Your task to perform on an android device: Add razer nari to the cart on target Image 0: 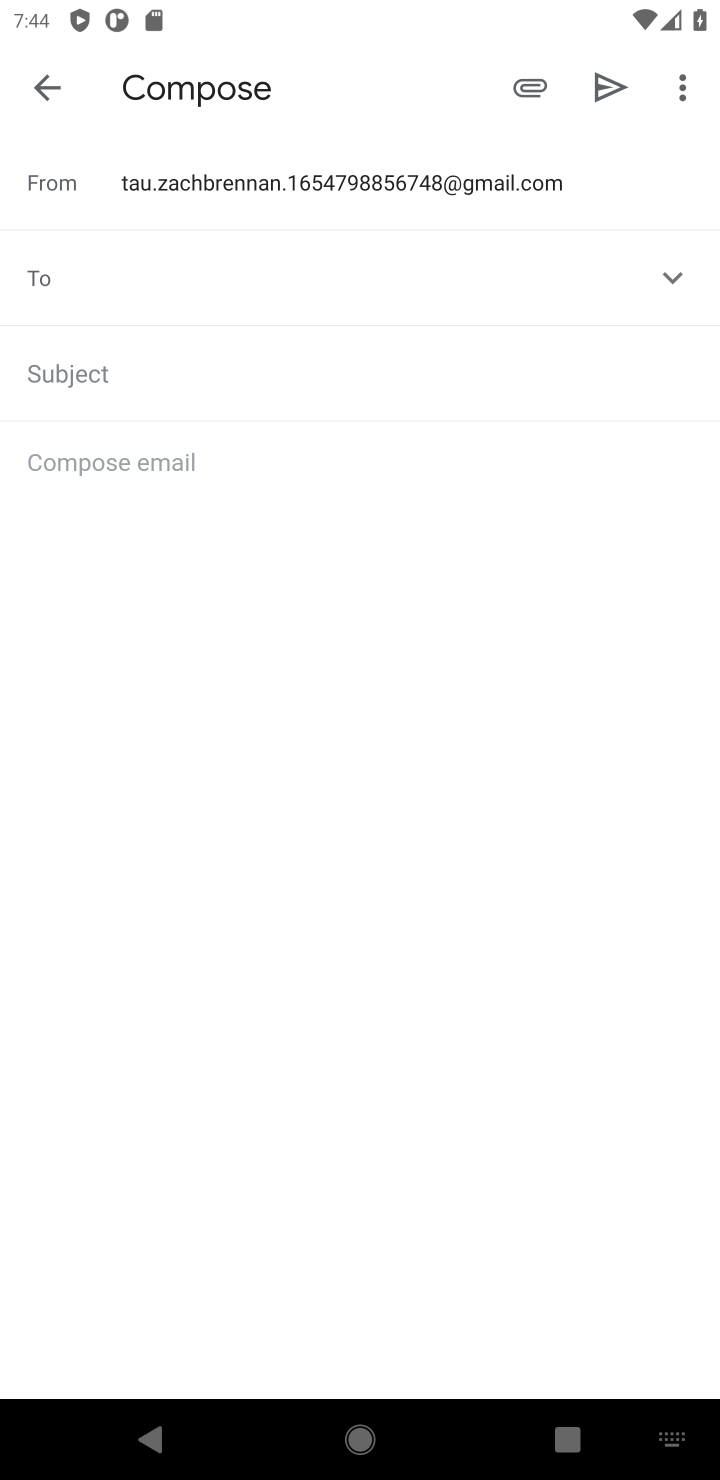
Step 0: press home button
Your task to perform on an android device: Add razer nari to the cart on target Image 1: 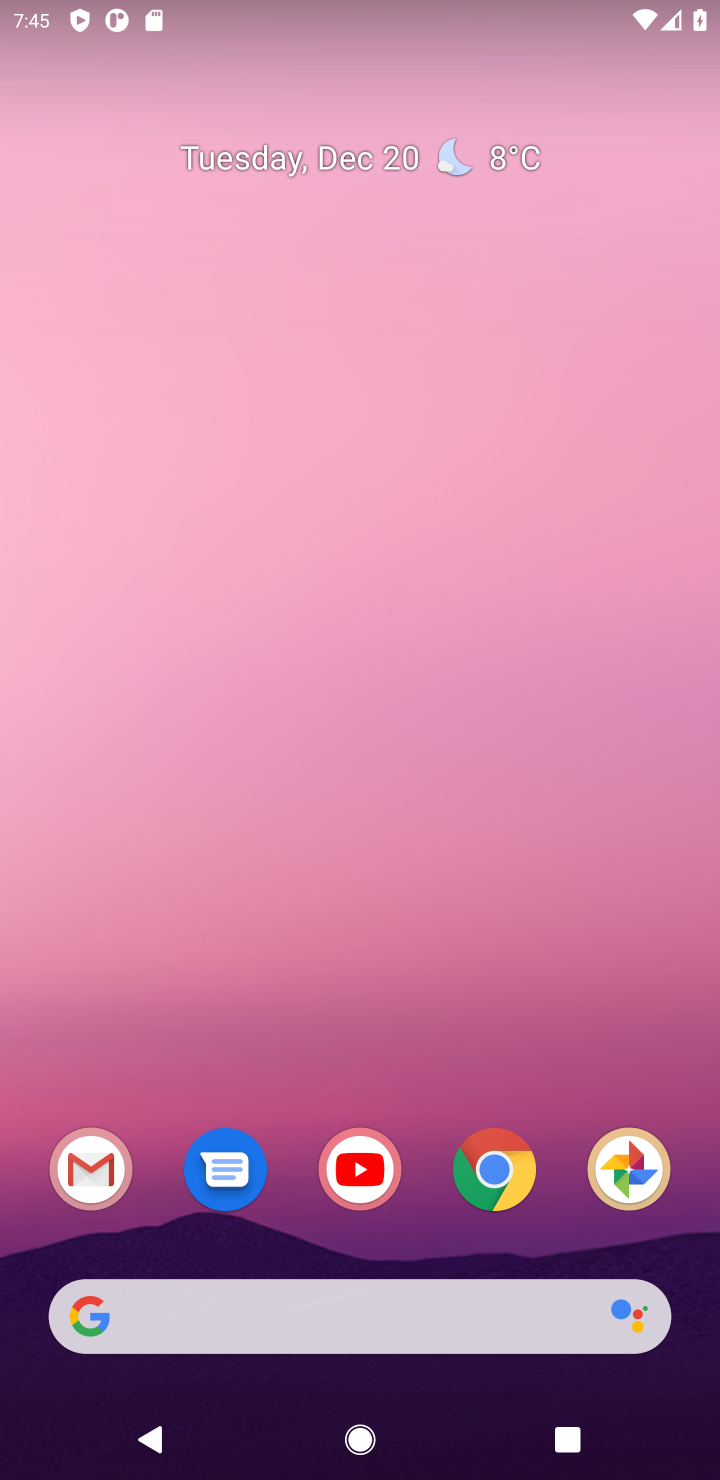
Step 1: click (527, 1176)
Your task to perform on an android device: Add razer nari to the cart on target Image 2: 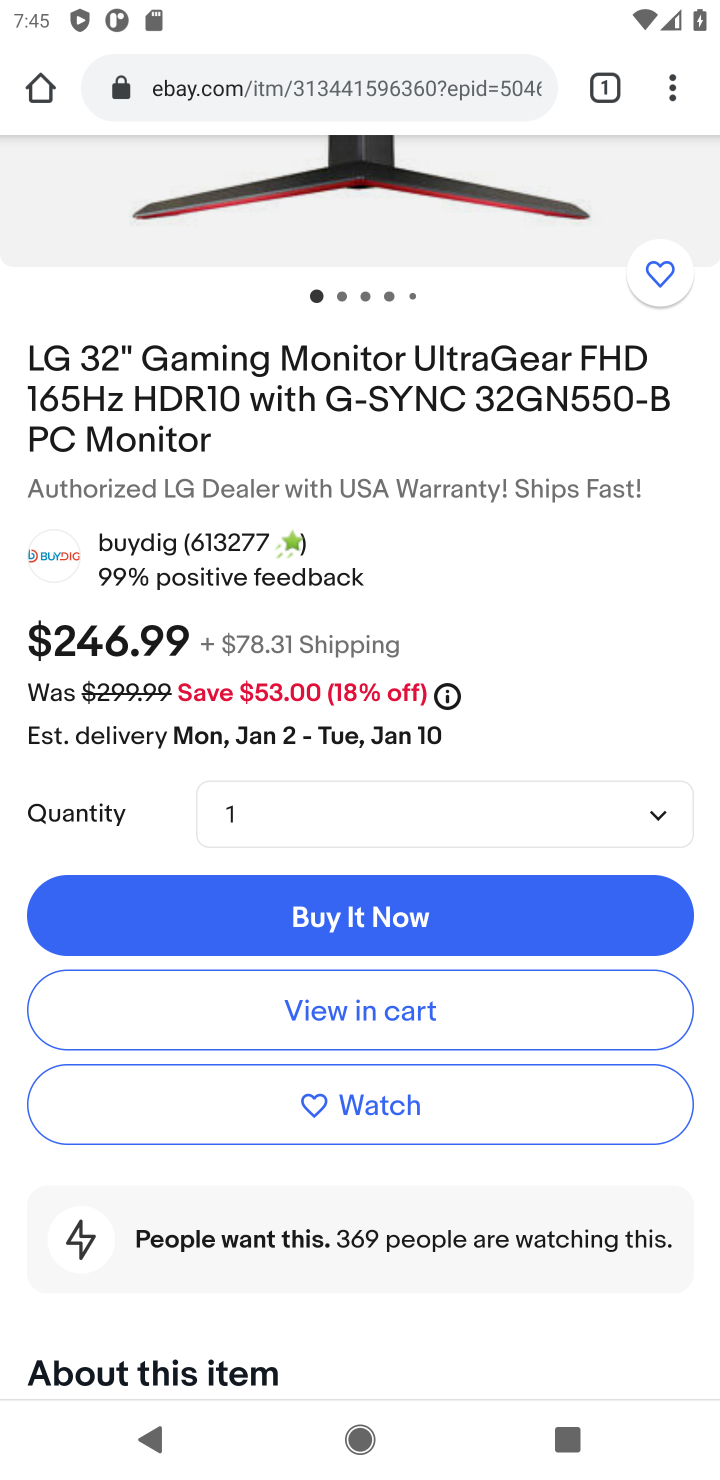
Step 2: click (388, 95)
Your task to perform on an android device: Add razer nari to the cart on target Image 3: 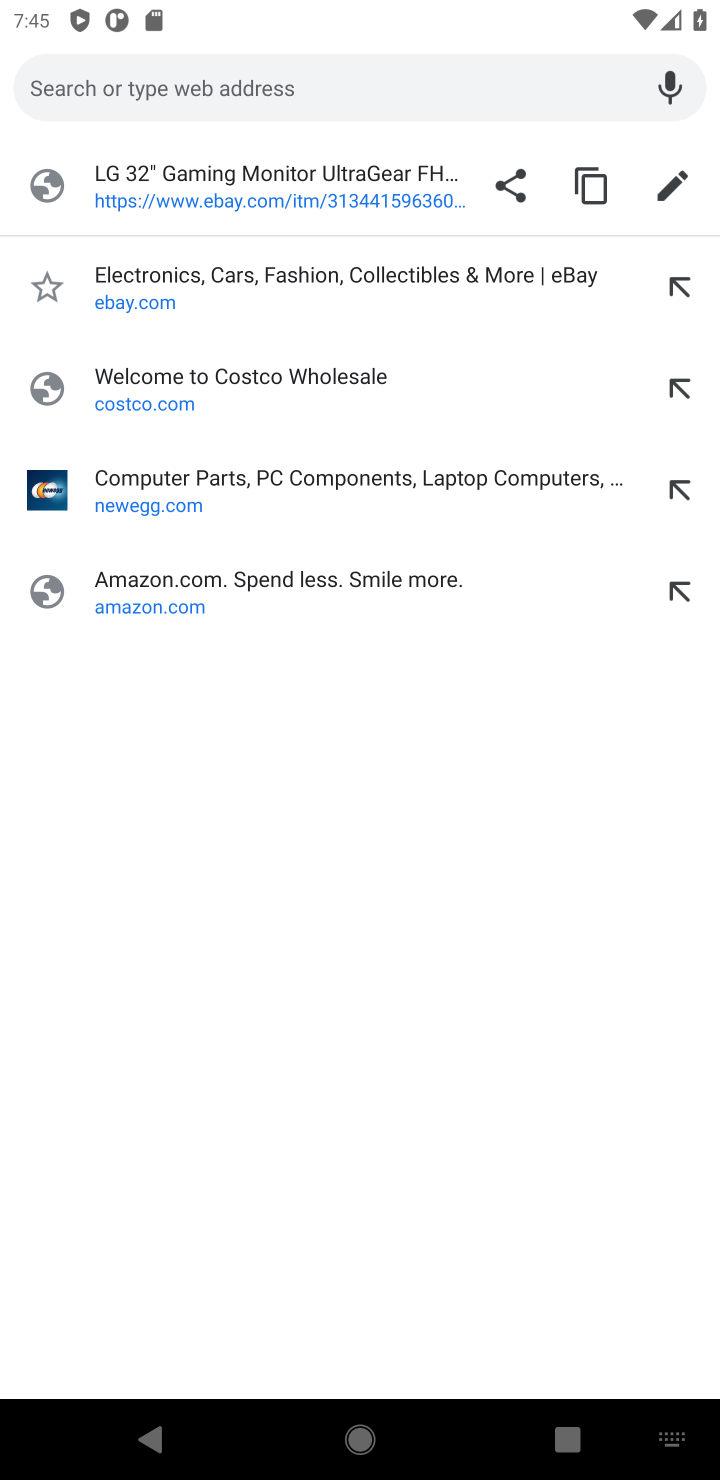
Step 3: type "target"
Your task to perform on an android device: Add razer nari to the cart on target Image 4: 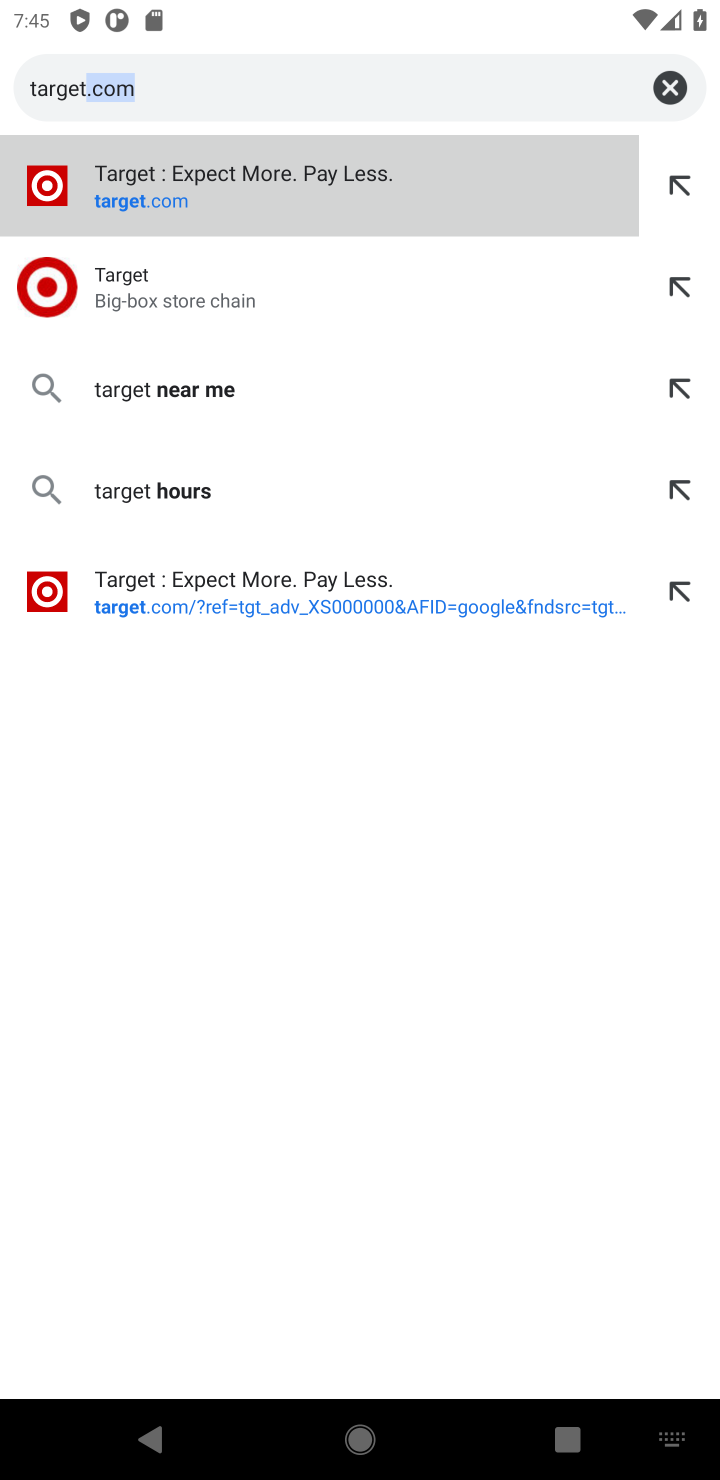
Step 4: click (312, 205)
Your task to perform on an android device: Add razer nari to the cart on target Image 5: 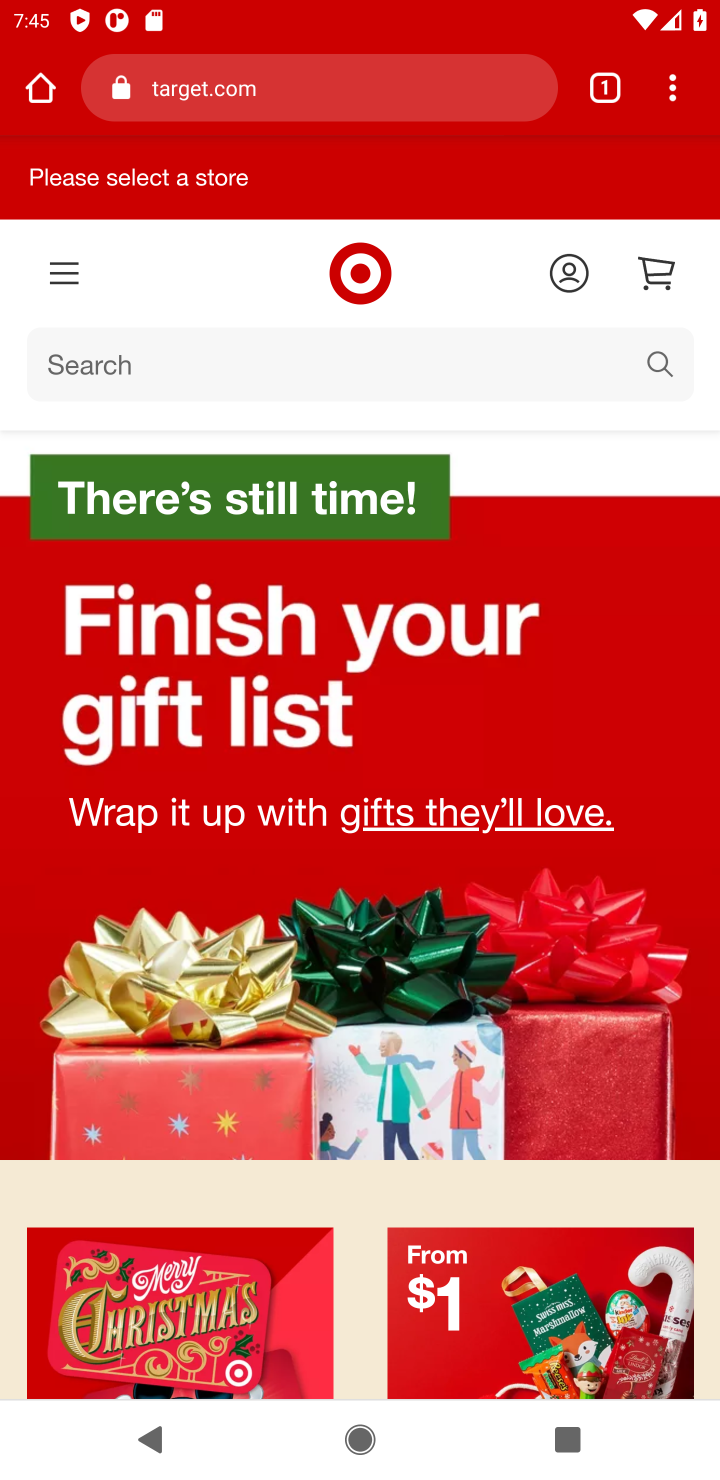
Step 5: click (134, 363)
Your task to perform on an android device: Add razer nari to the cart on target Image 6: 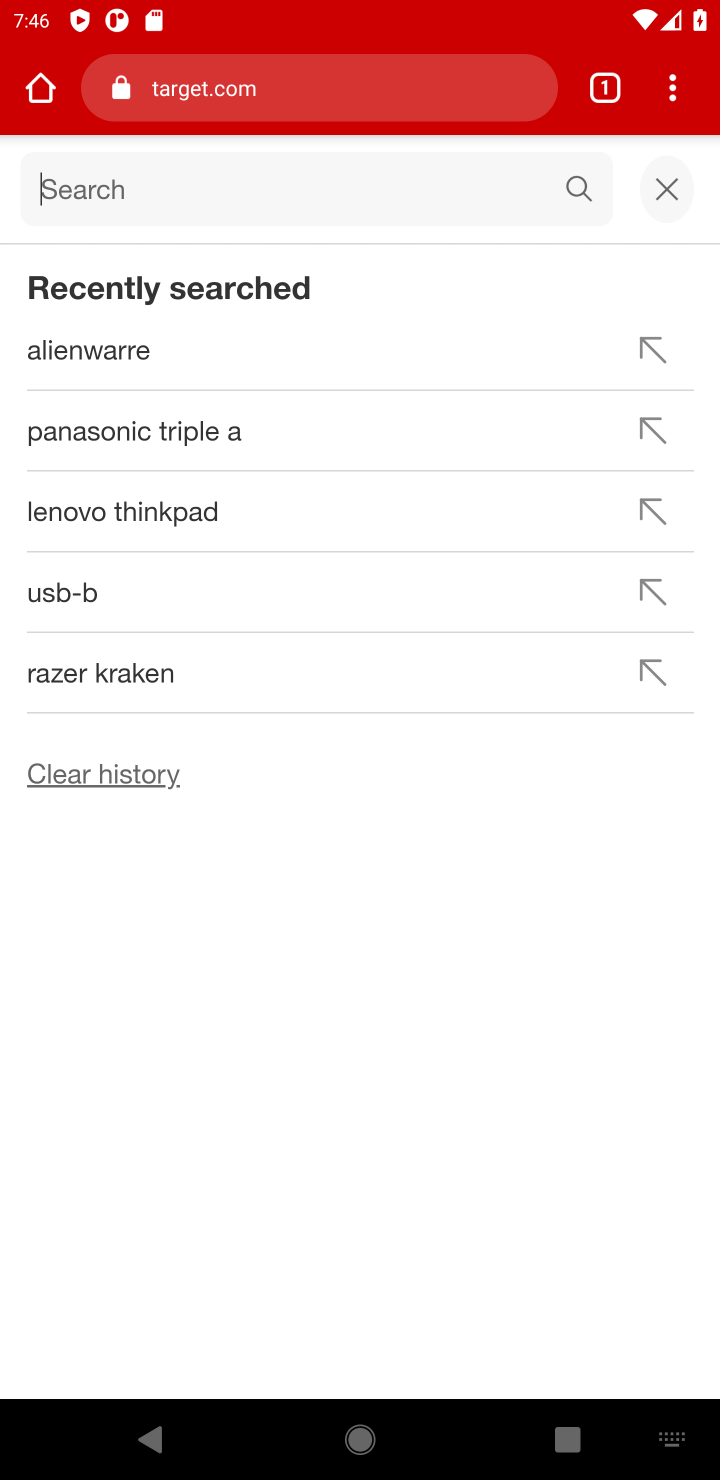
Step 6: type "razer nari"
Your task to perform on an android device: Add razer nari to the cart on target Image 7: 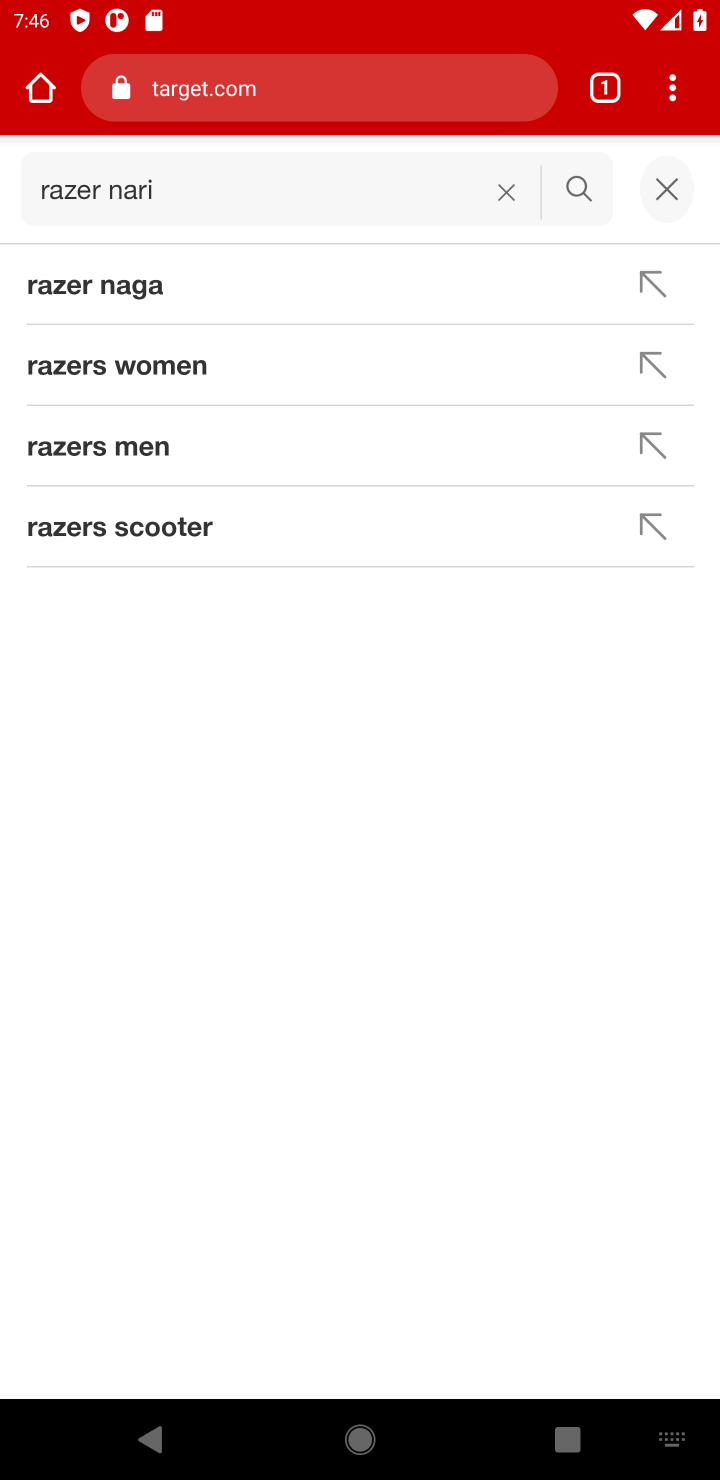
Step 7: click (583, 190)
Your task to perform on an android device: Add razer nari to the cart on target Image 8: 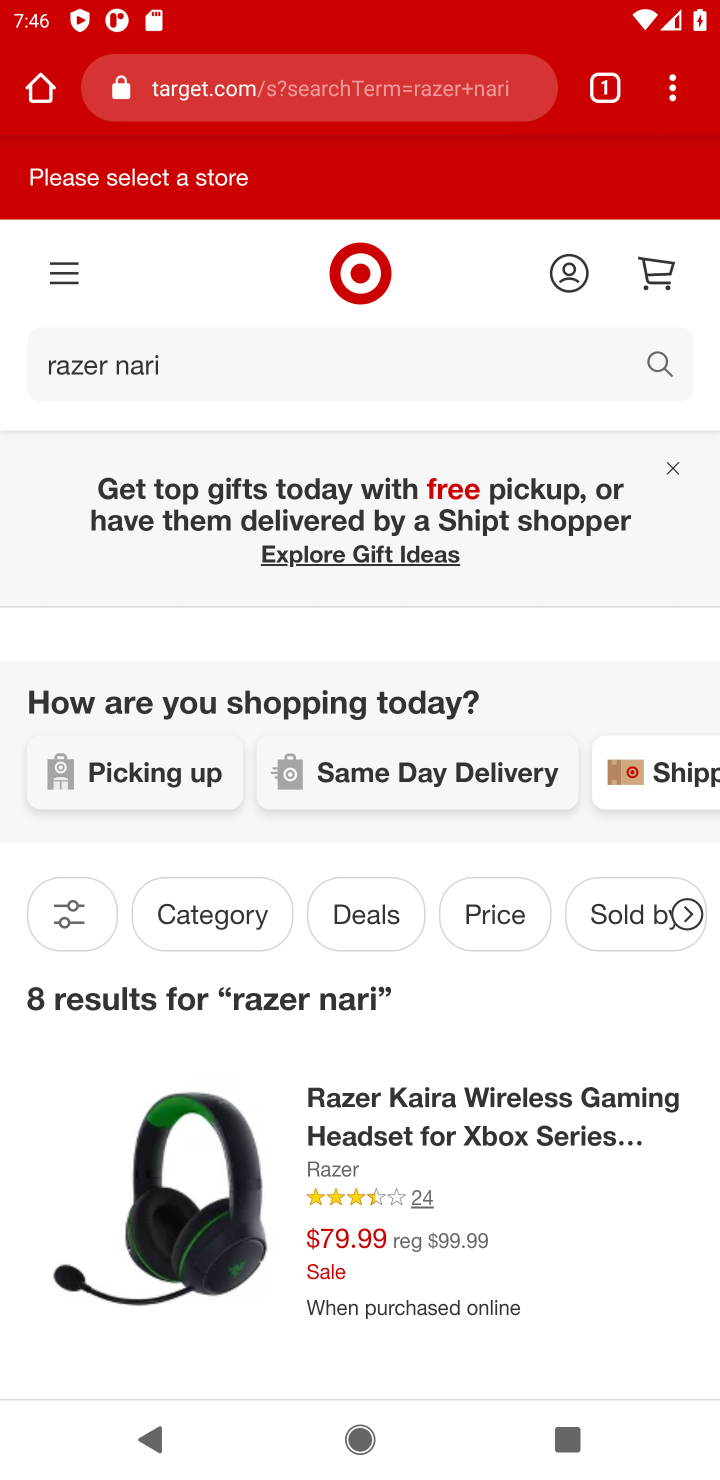
Step 8: click (508, 1110)
Your task to perform on an android device: Add razer nari to the cart on target Image 9: 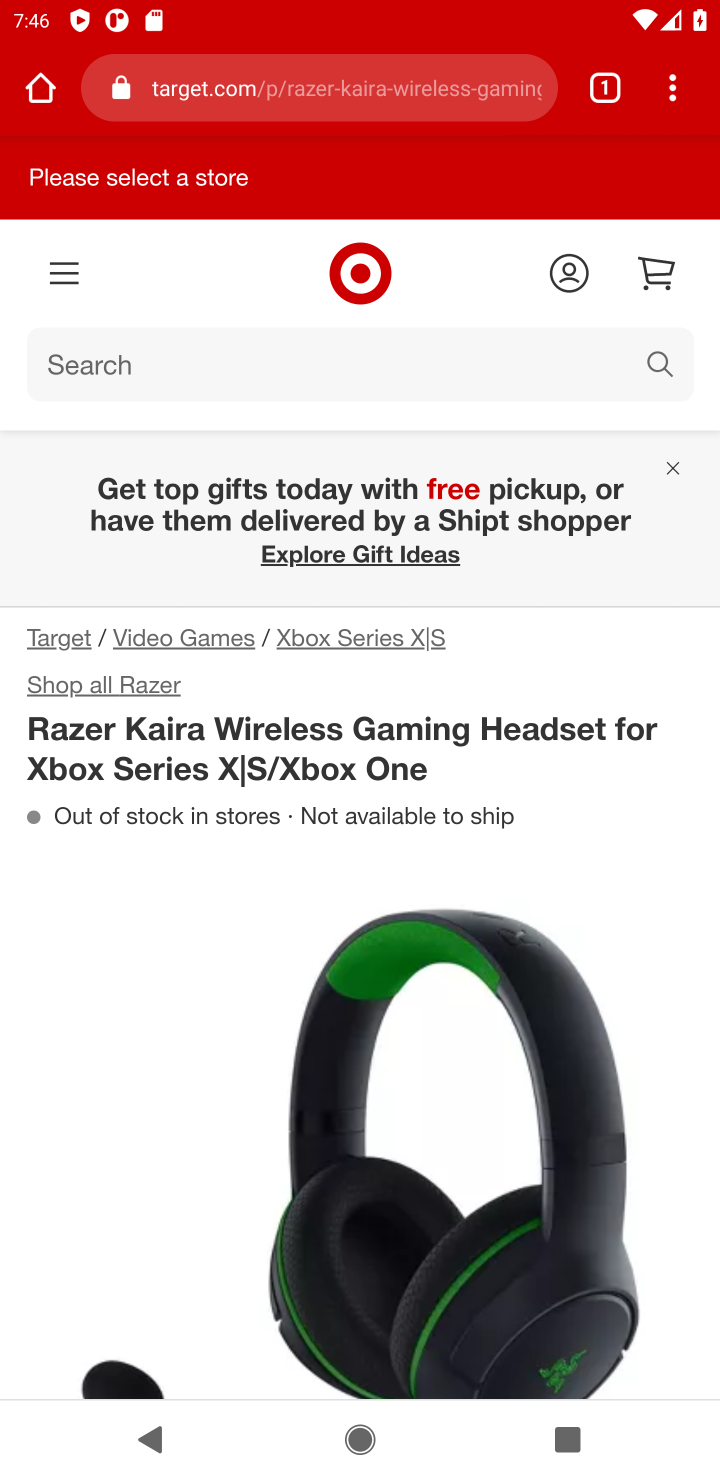
Step 9: drag from (553, 1236) to (510, 660)
Your task to perform on an android device: Add razer nari to the cart on target Image 10: 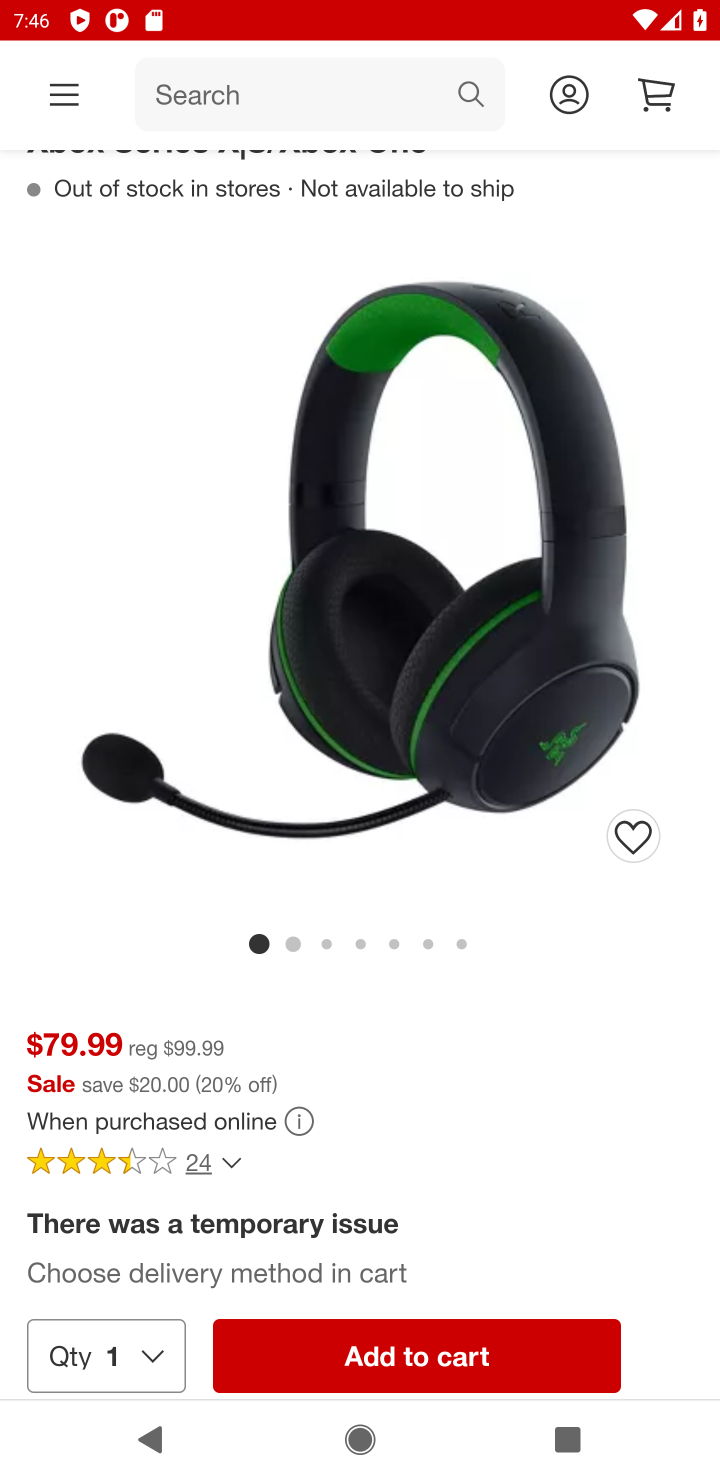
Step 10: drag from (618, 1274) to (550, 818)
Your task to perform on an android device: Add razer nari to the cart on target Image 11: 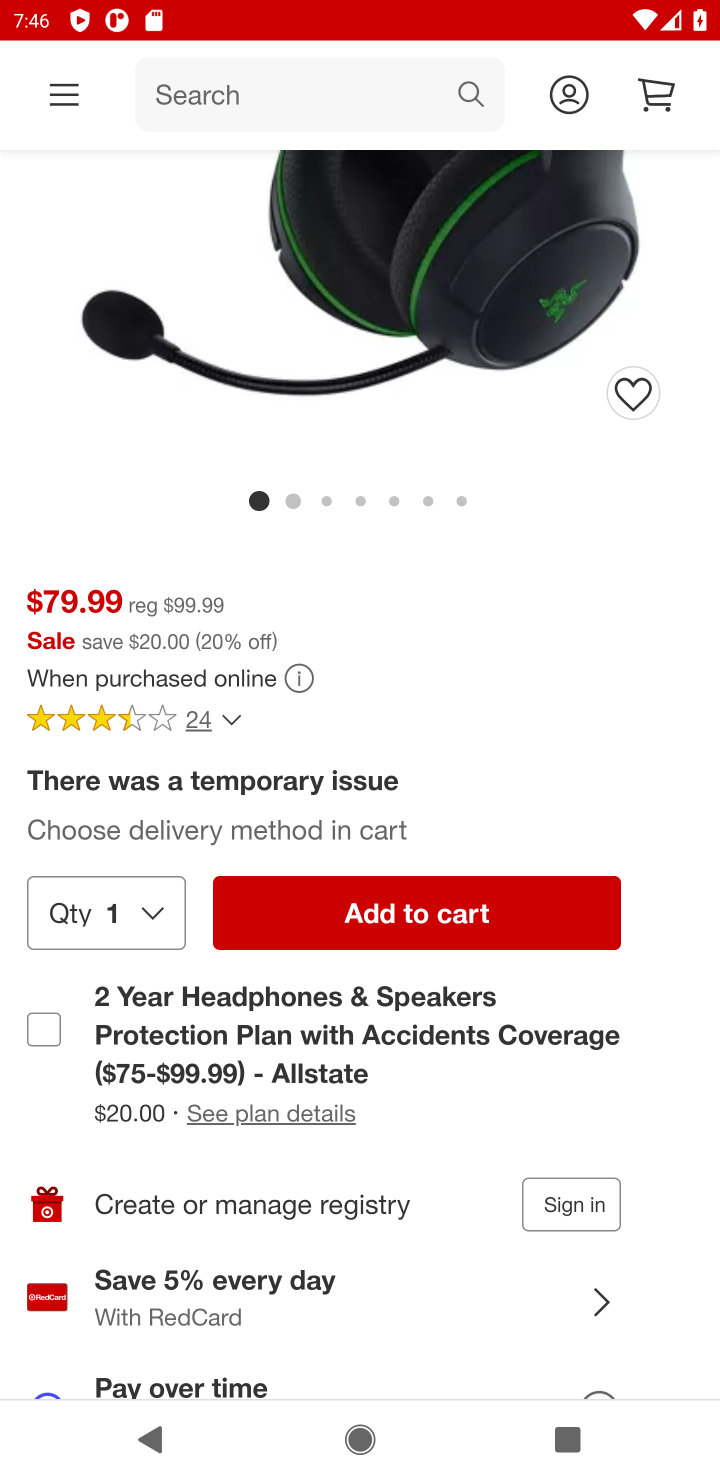
Step 11: click (567, 923)
Your task to perform on an android device: Add razer nari to the cart on target Image 12: 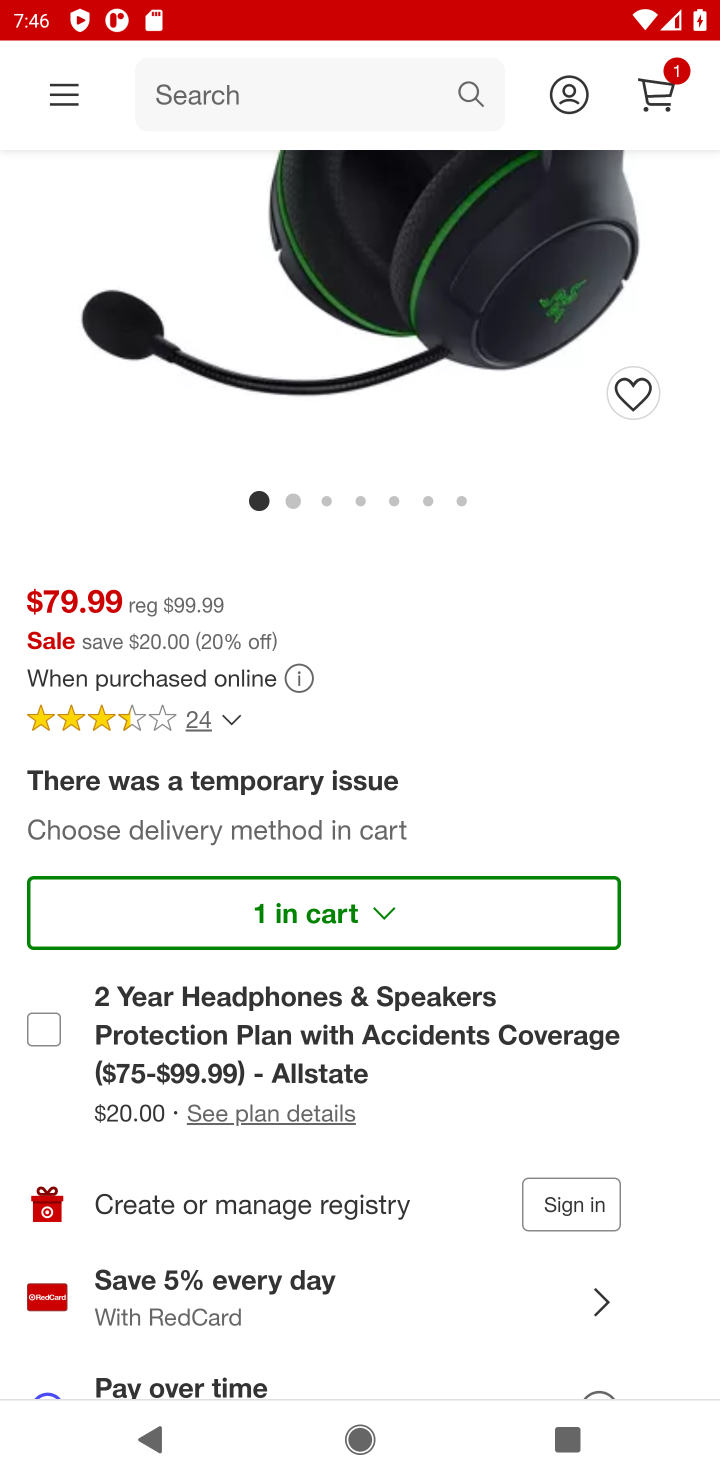
Step 12: task complete